Your task to perform on an android device: toggle notification dots Image 0: 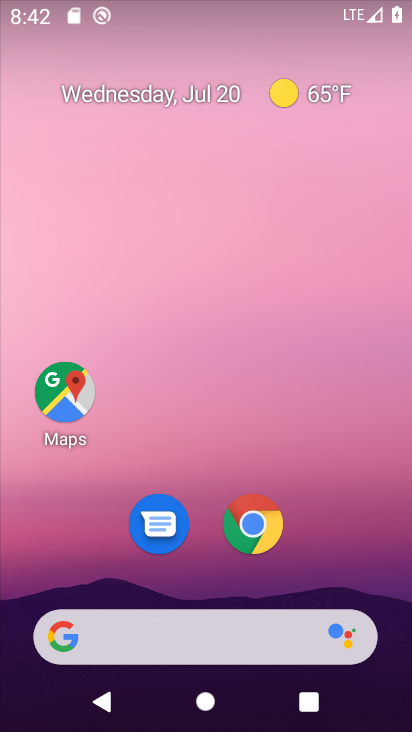
Step 0: drag from (315, 526) to (329, 0)
Your task to perform on an android device: toggle notification dots Image 1: 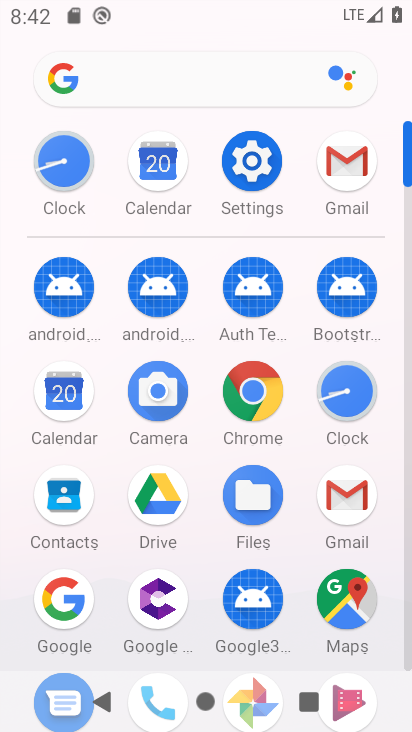
Step 1: click (252, 159)
Your task to perform on an android device: toggle notification dots Image 2: 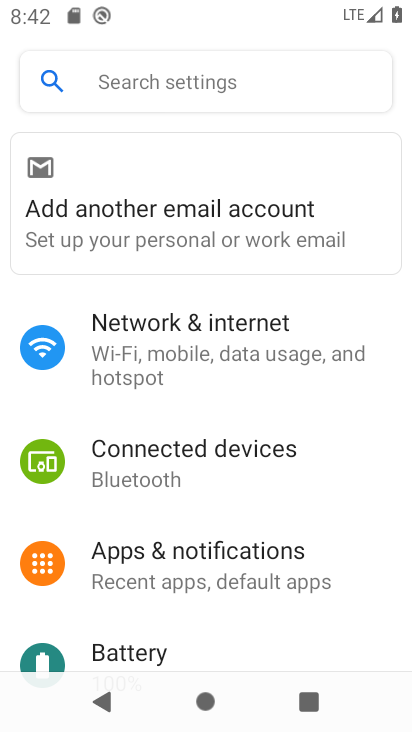
Step 2: click (195, 562)
Your task to perform on an android device: toggle notification dots Image 3: 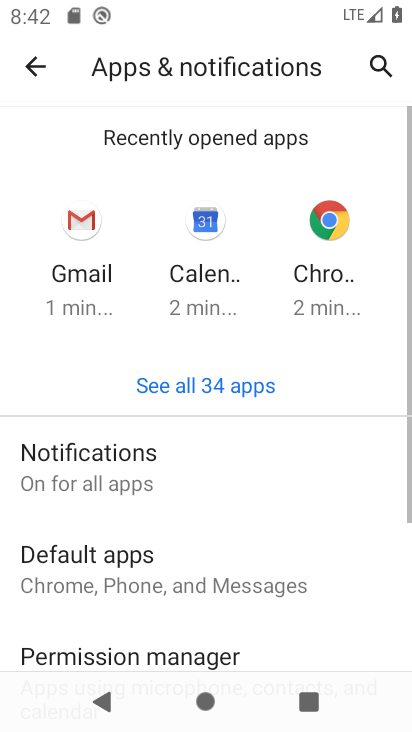
Step 3: click (241, 541)
Your task to perform on an android device: toggle notification dots Image 4: 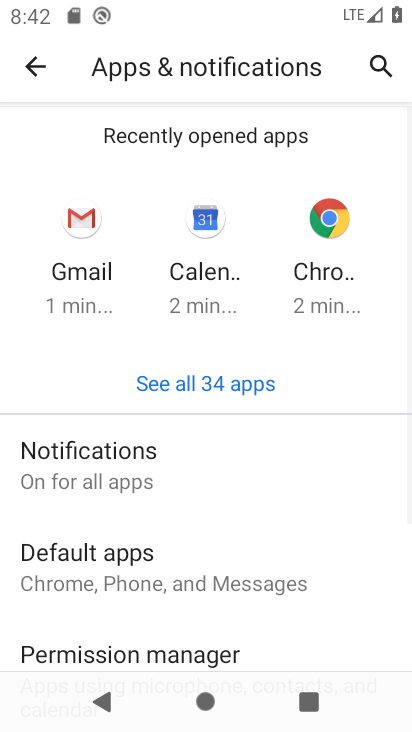
Step 4: click (137, 473)
Your task to perform on an android device: toggle notification dots Image 5: 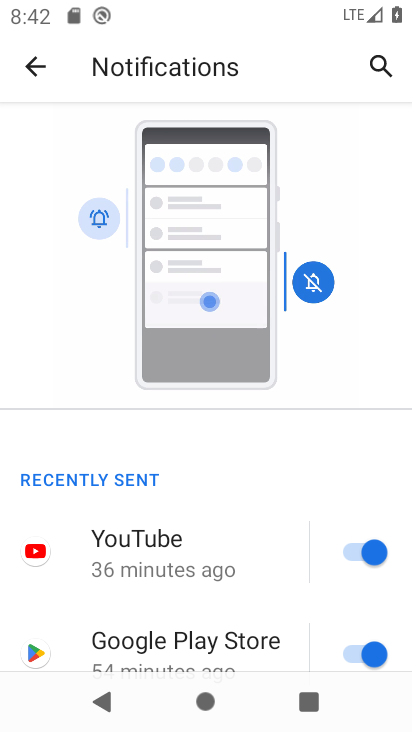
Step 5: drag from (238, 585) to (270, 175)
Your task to perform on an android device: toggle notification dots Image 6: 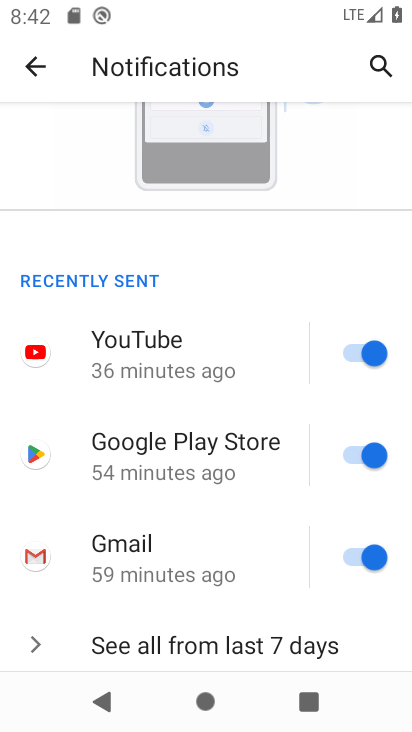
Step 6: drag from (188, 501) to (243, 271)
Your task to perform on an android device: toggle notification dots Image 7: 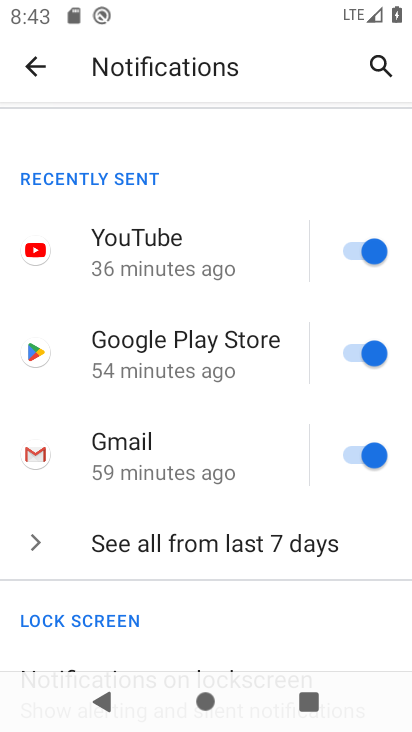
Step 7: drag from (194, 551) to (175, 234)
Your task to perform on an android device: toggle notification dots Image 8: 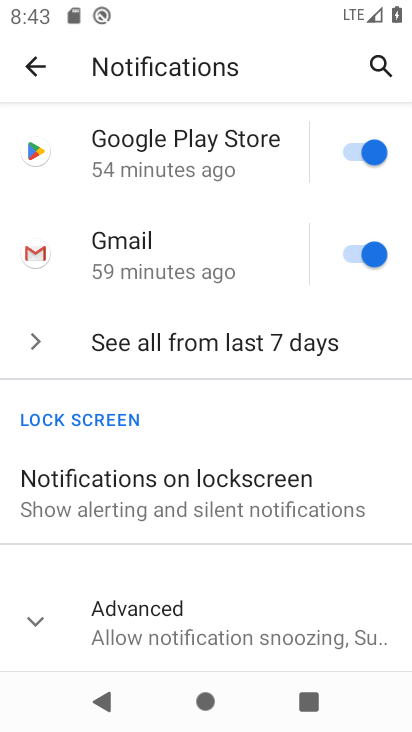
Step 8: click (29, 618)
Your task to perform on an android device: toggle notification dots Image 9: 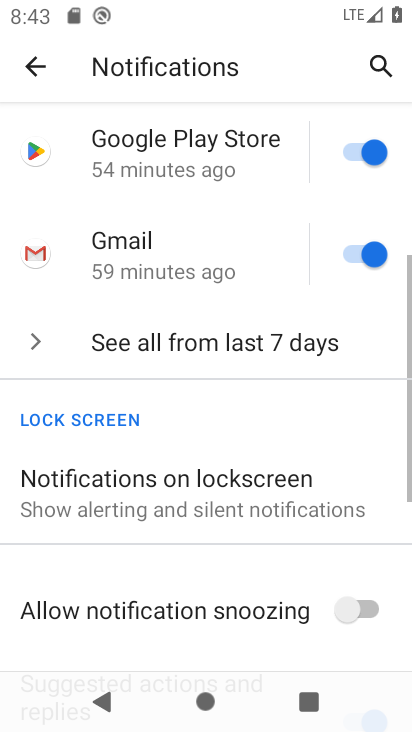
Step 9: drag from (174, 561) to (205, 157)
Your task to perform on an android device: toggle notification dots Image 10: 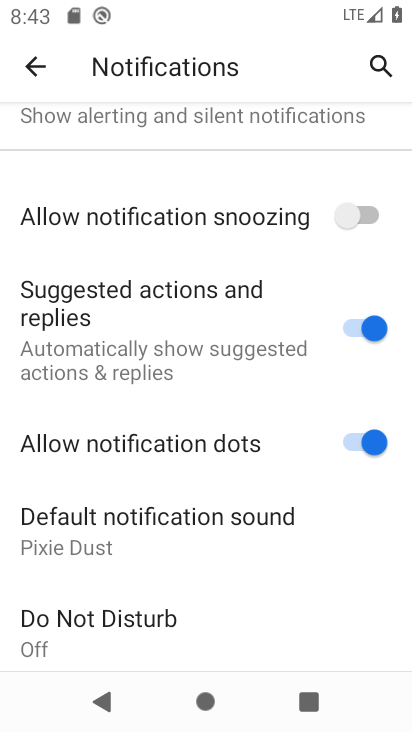
Step 10: click (351, 438)
Your task to perform on an android device: toggle notification dots Image 11: 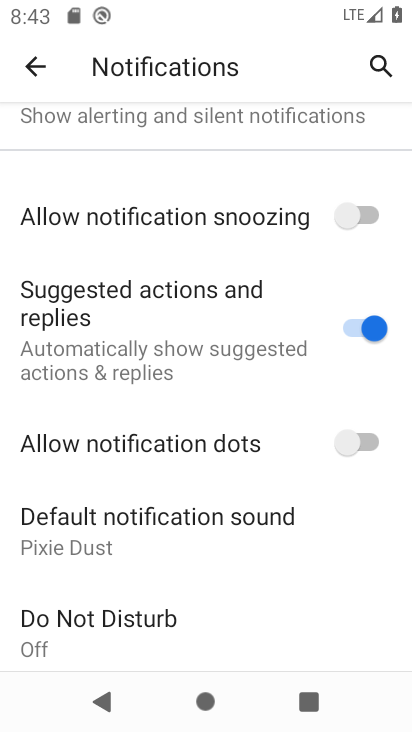
Step 11: task complete